Your task to perform on an android device: toggle notification dots Image 0: 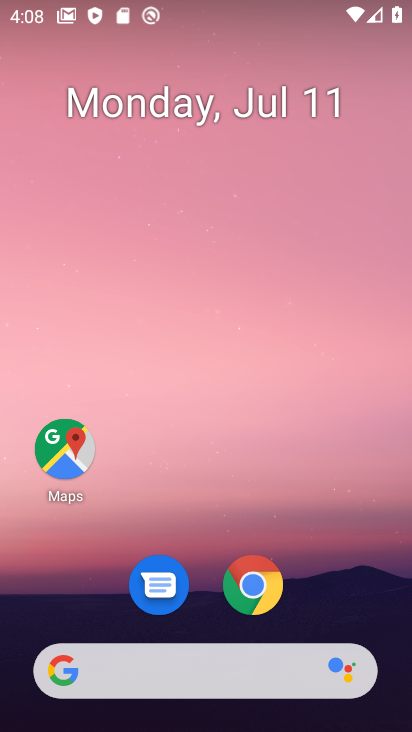
Step 0: drag from (255, 497) to (285, 13)
Your task to perform on an android device: toggle notification dots Image 1: 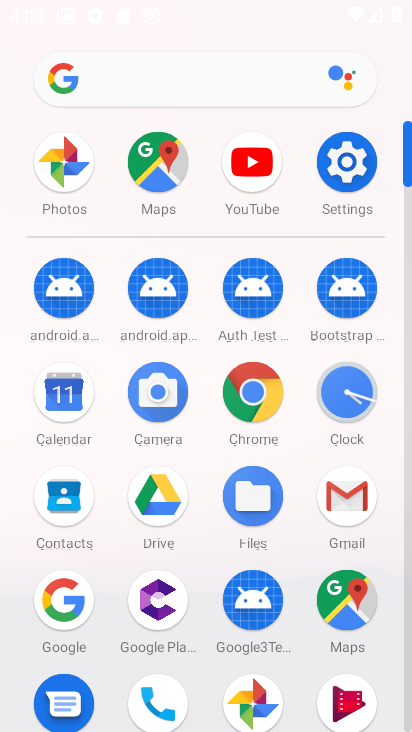
Step 1: click (330, 160)
Your task to perform on an android device: toggle notification dots Image 2: 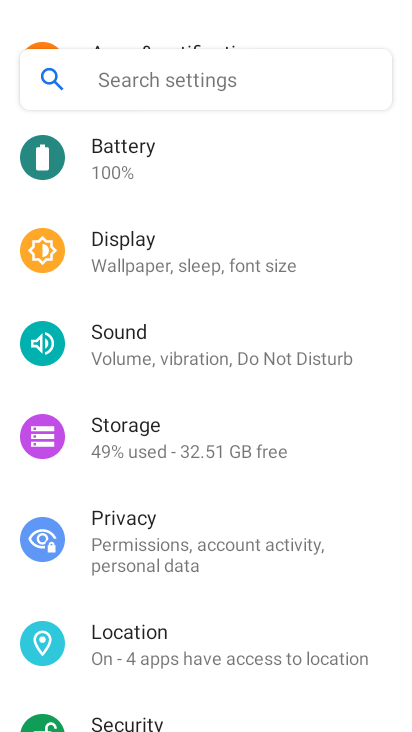
Step 2: drag from (199, 243) to (190, 645)
Your task to perform on an android device: toggle notification dots Image 3: 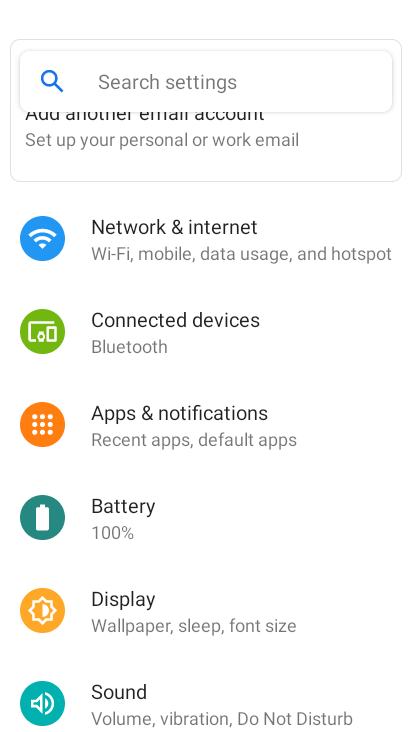
Step 3: click (222, 425)
Your task to perform on an android device: toggle notification dots Image 4: 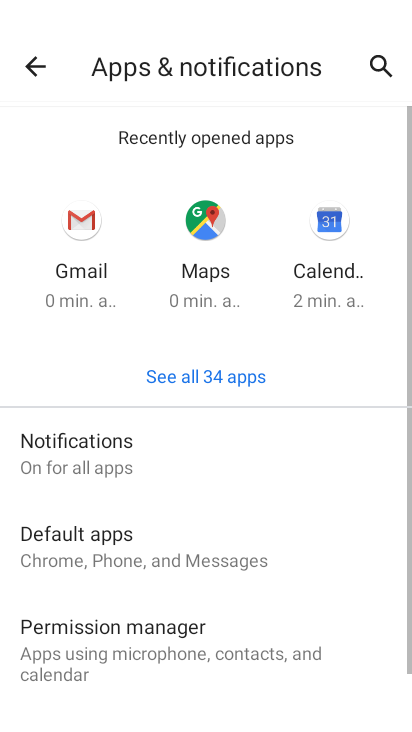
Step 4: click (128, 442)
Your task to perform on an android device: toggle notification dots Image 5: 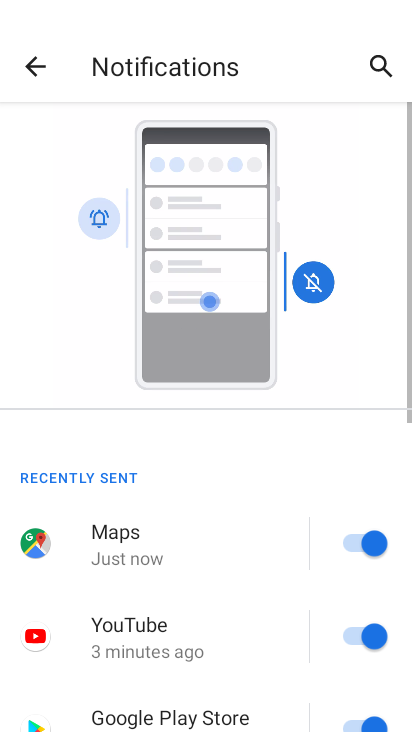
Step 5: drag from (213, 598) to (180, 116)
Your task to perform on an android device: toggle notification dots Image 6: 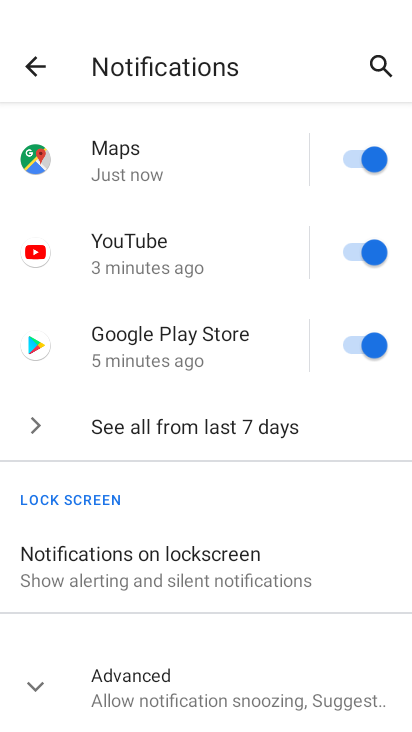
Step 6: click (29, 681)
Your task to perform on an android device: toggle notification dots Image 7: 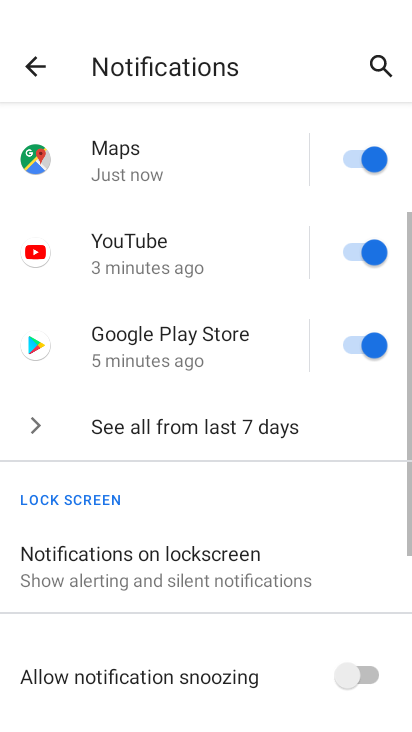
Step 7: drag from (167, 615) to (212, 237)
Your task to perform on an android device: toggle notification dots Image 8: 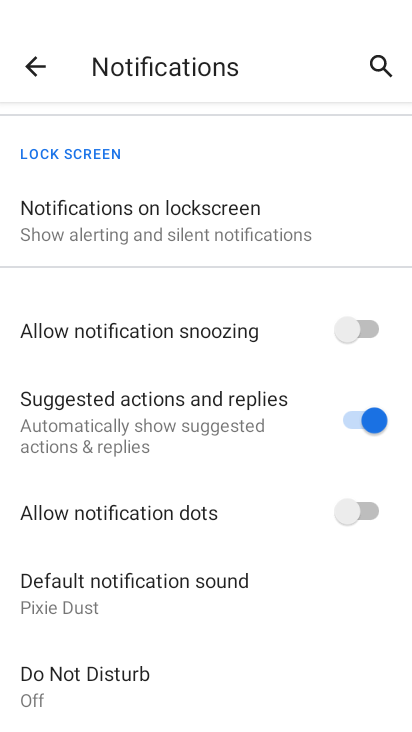
Step 8: click (361, 507)
Your task to perform on an android device: toggle notification dots Image 9: 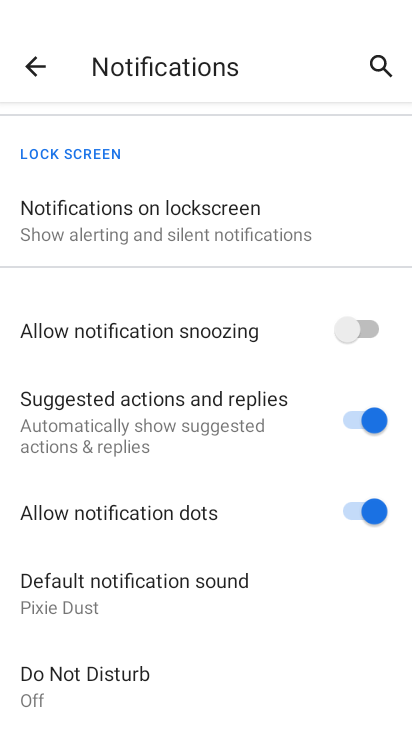
Step 9: task complete